Your task to perform on an android device: toggle priority inbox in the gmail app Image 0: 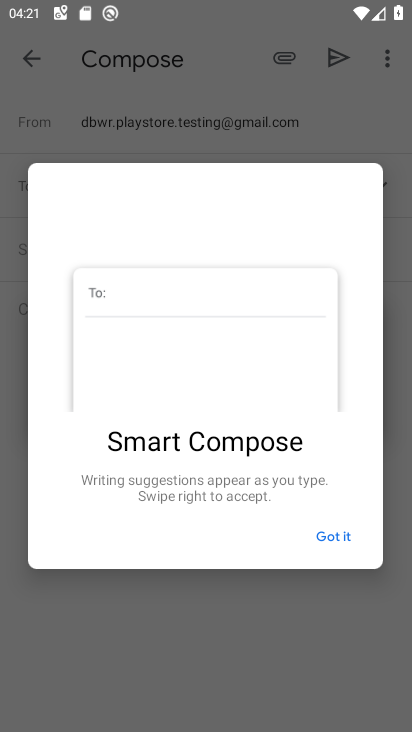
Step 0: press home button
Your task to perform on an android device: toggle priority inbox in the gmail app Image 1: 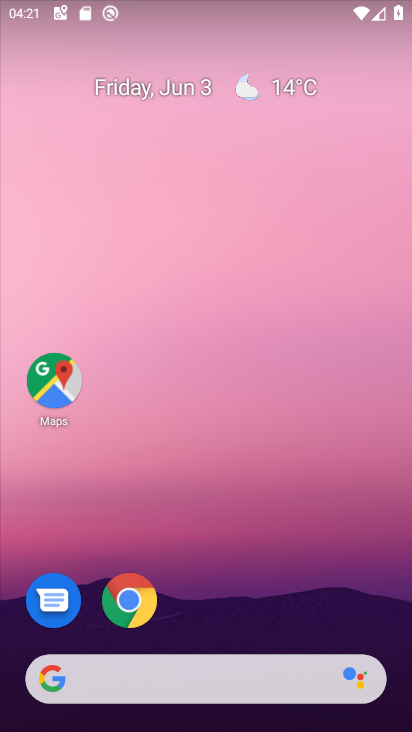
Step 1: drag from (251, 527) to (196, 145)
Your task to perform on an android device: toggle priority inbox in the gmail app Image 2: 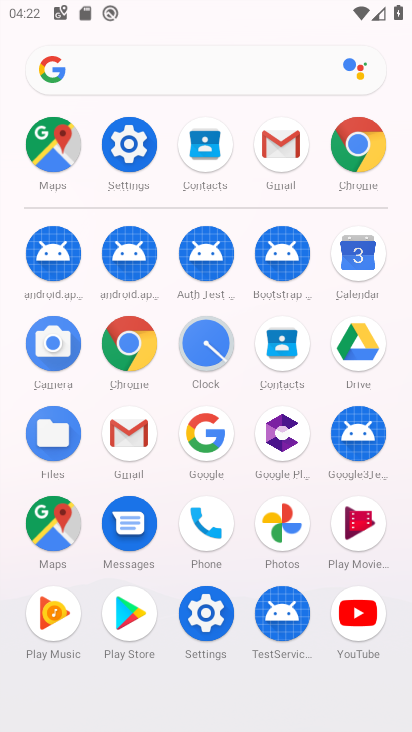
Step 2: click (281, 155)
Your task to perform on an android device: toggle priority inbox in the gmail app Image 3: 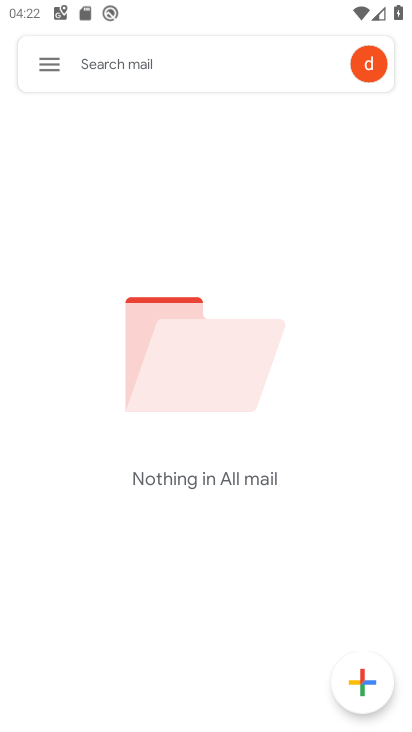
Step 3: click (37, 60)
Your task to perform on an android device: toggle priority inbox in the gmail app Image 4: 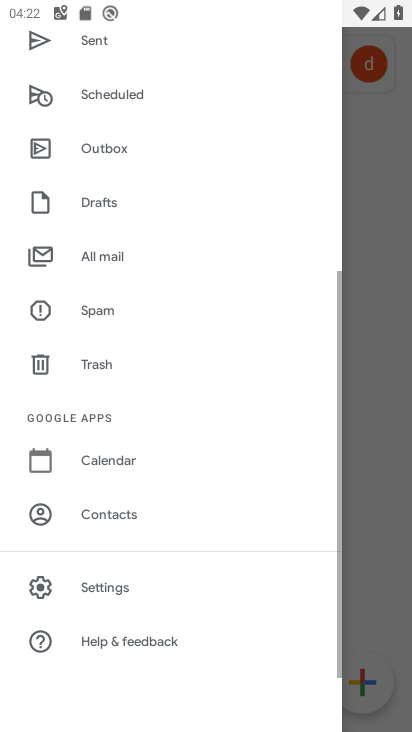
Step 4: click (97, 597)
Your task to perform on an android device: toggle priority inbox in the gmail app Image 5: 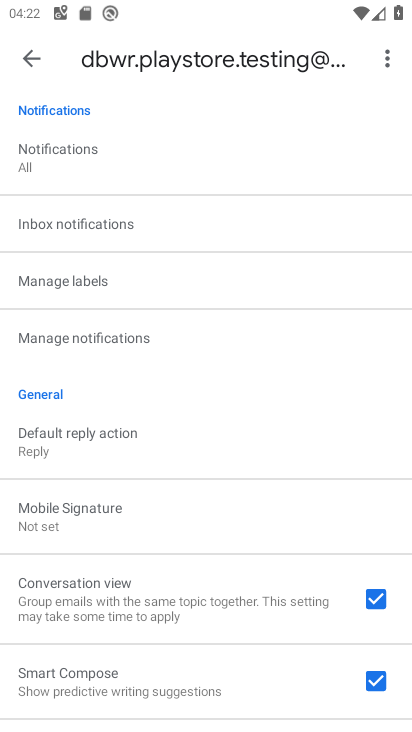
Step 5: drag from (85, 165) to (133, 582)
Your task to perform on an android device: toggle priority inbox in the gmail app Image 6: 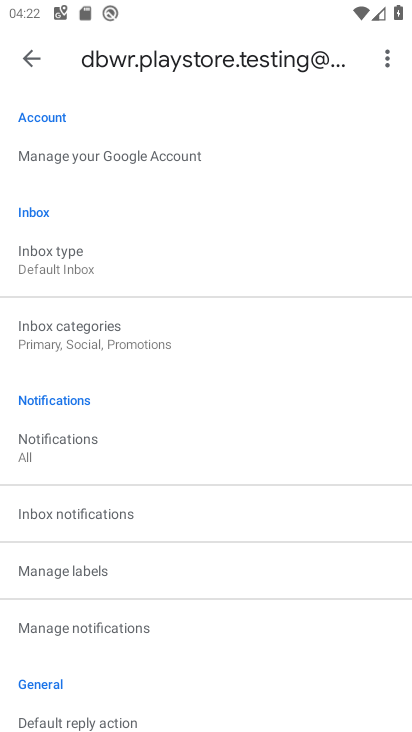
Step 6: click (80, 252)
Your task to perform on an android device: toggle priority inbox in the gmail app Image 7: 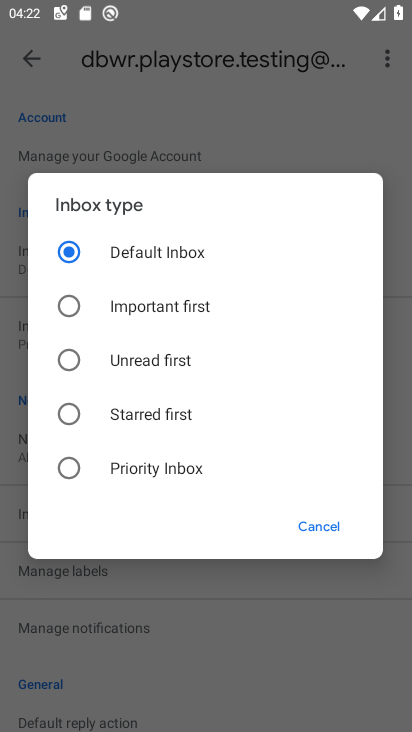
Step 7: click (154, 478)
Your task to perform on an android device: toggle priority inbox in the gmail app Image 8: 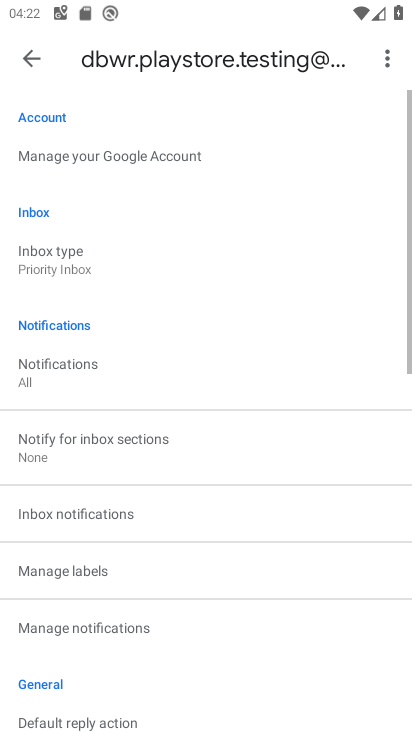
Step 8: task complete